Your task to perform on an android device: add a contact Image 0: 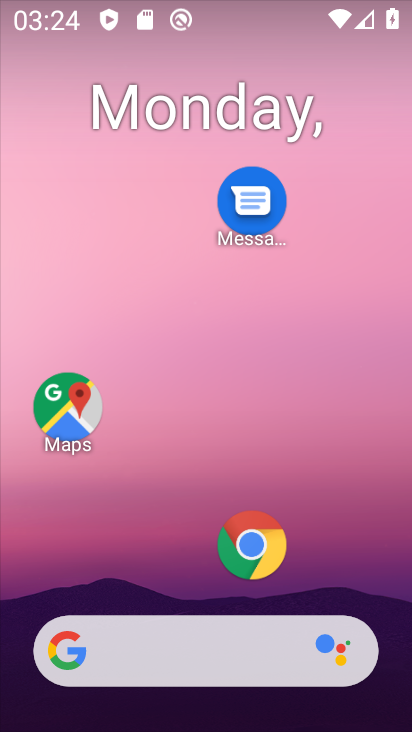
Step 0: drag from (181, 594) to (232, 187)
Your task to perform on an android device: add a contact Image 1: 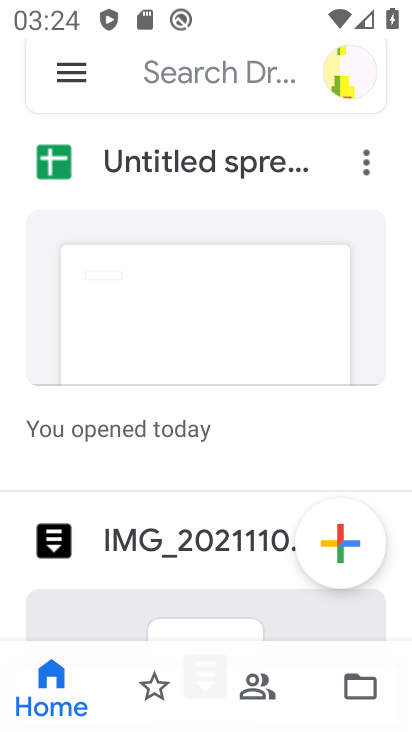
Step 1: press back button
Your task to perform on an android device: add a contact Image 2: 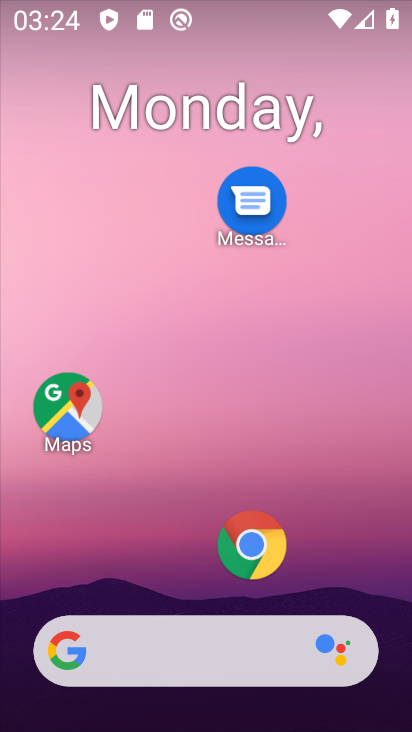
Step 2: drag from (179, 555) to (213, 104)
Your task to perform on an android device: add a contact Image 3: 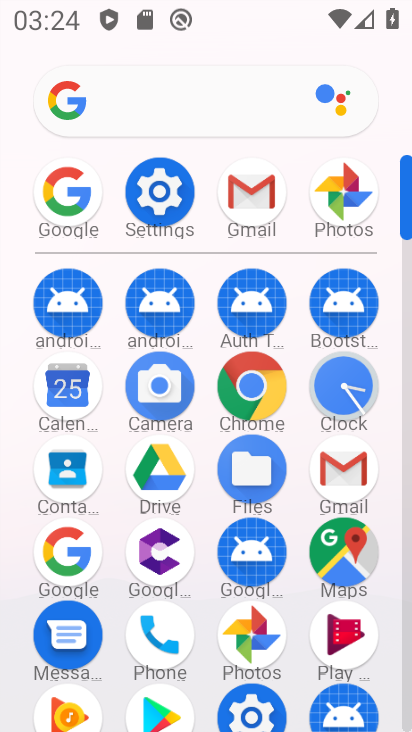
Step 3: click (71, 464)
Your task to perform on an android device: add a contact Image 4: 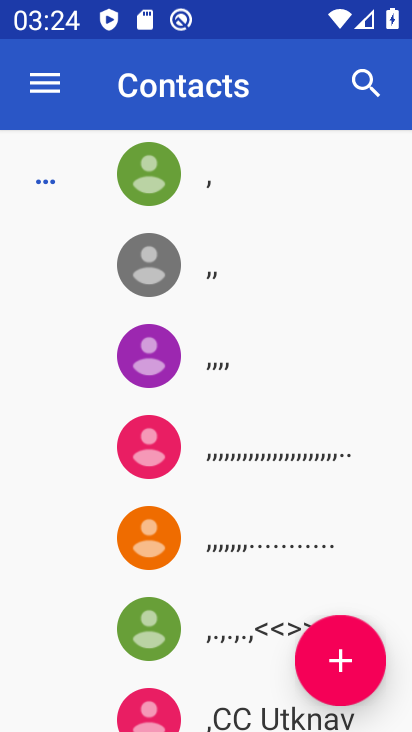
Step 4: click (333, 647)
Your task to perform on an android device: add a contact Image 5: 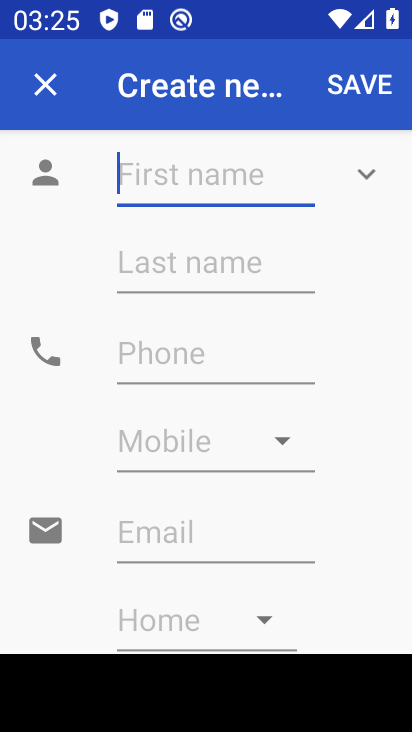
Step 5: type "vhvh"
Your task to perform on an android device: add a contact Image 6: 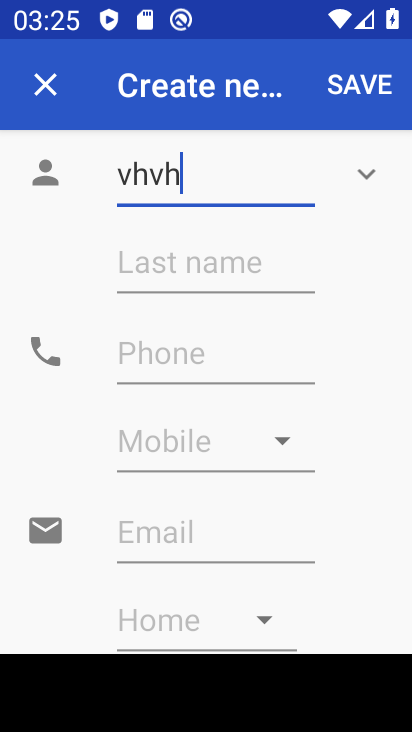
Step 6: click (193, 348)
Your task to perform on an android device: add a contact Image 7: 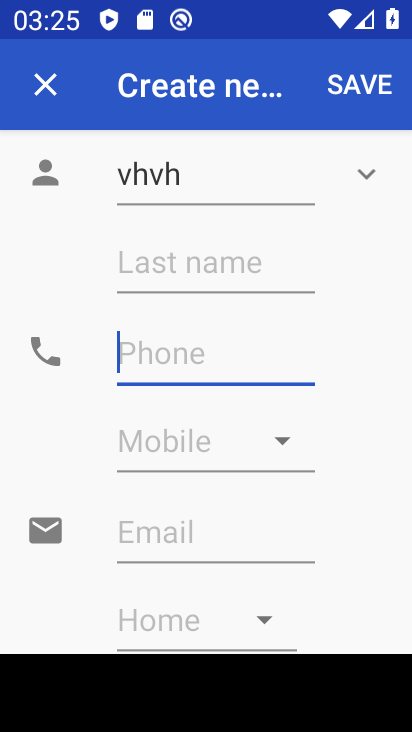
Step 7: type "86686"
Your task to perform on an android device: add a contact Image 8: 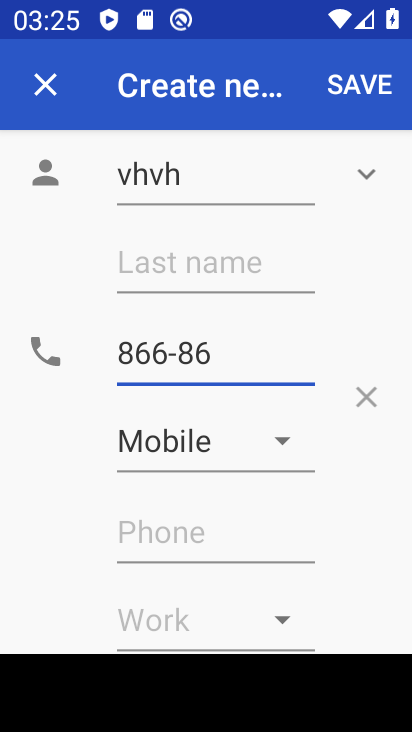
Step 8: click (357, 91)
Your task to perform on an android device: add a contact Image 9: 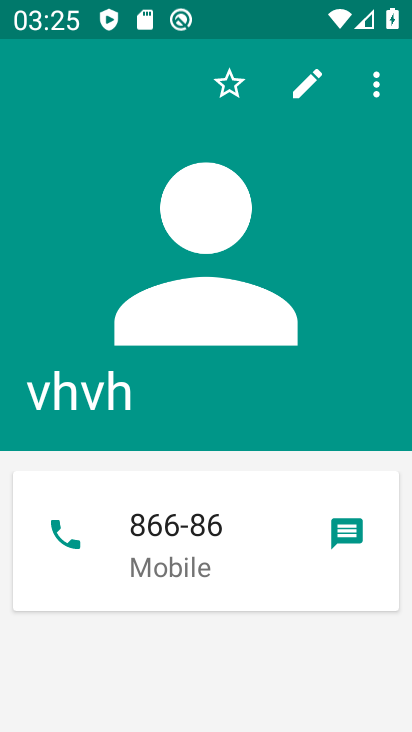
Step 9: task complete